Your task to perform on an android device: set default search engine in the chrome app Image 0: 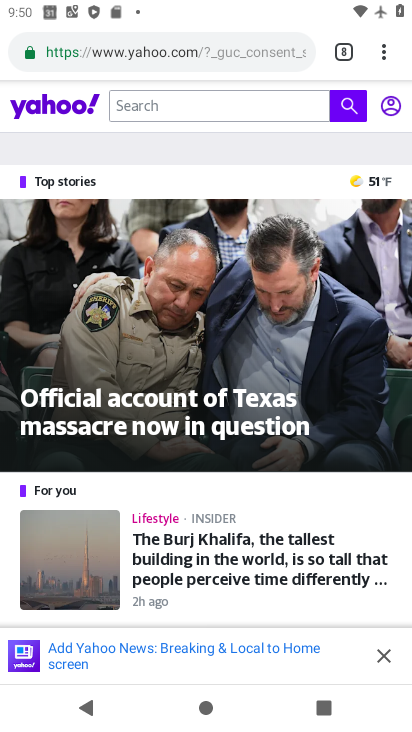
Step 0: press home button
Your task to perform on an android device: set default search engine in the chrome app Image 1: 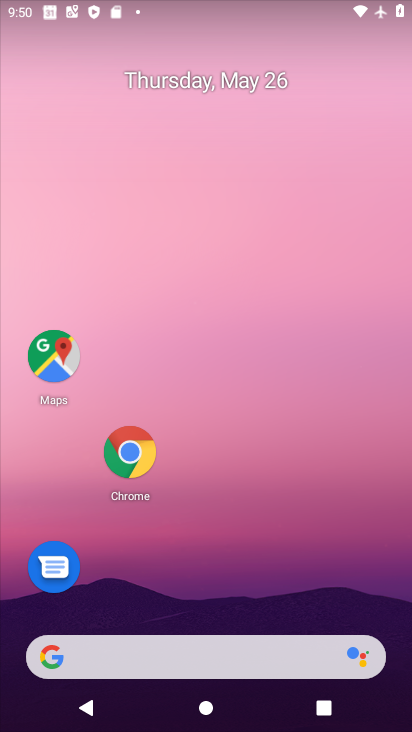
Step 1: click (137, 462)
Your task to perform on an android device: set default search engine in the chrome app Image 2: 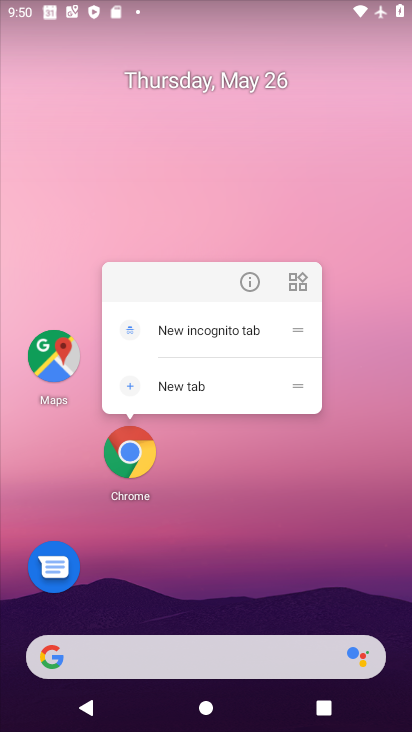
Step 2: click (131, 452)
Your task to perform on an android device: set default search engine in the chrome app Image 3: 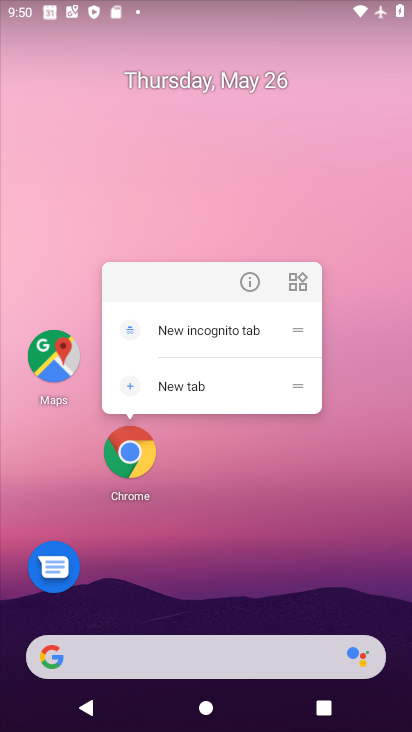
Step 3: click (125, 460)
Your task to perform on an android device: set default search engine in the chrome app Image 4: 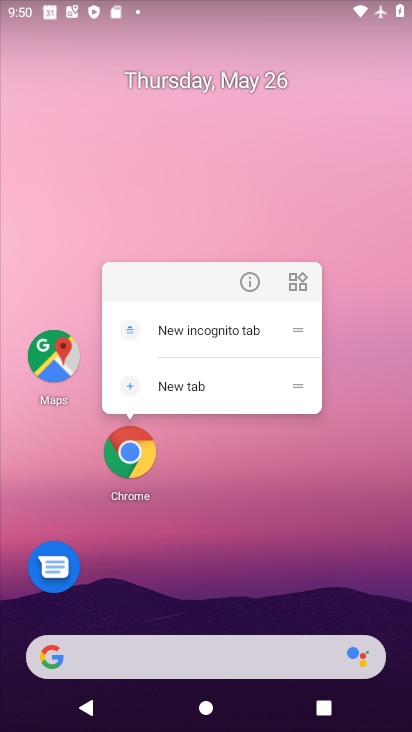
Step 4: click (132, 460)
Your task to perform on an android device: set default search engine in the chrome app Image 5: 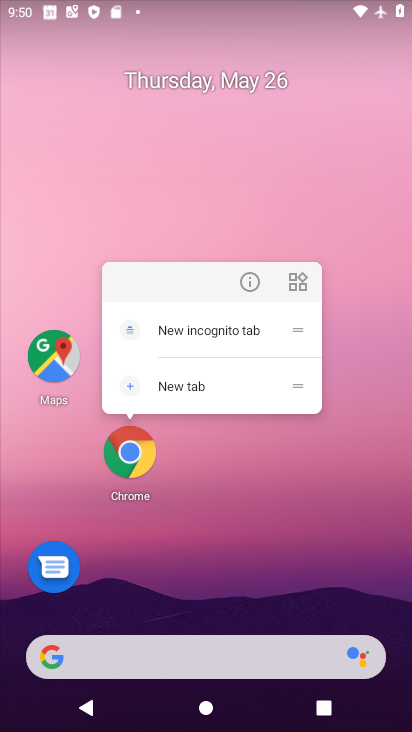
Step 5: click (131, 468)
Your task to perform on an android device: set default search engine in the chrome app Image 6: 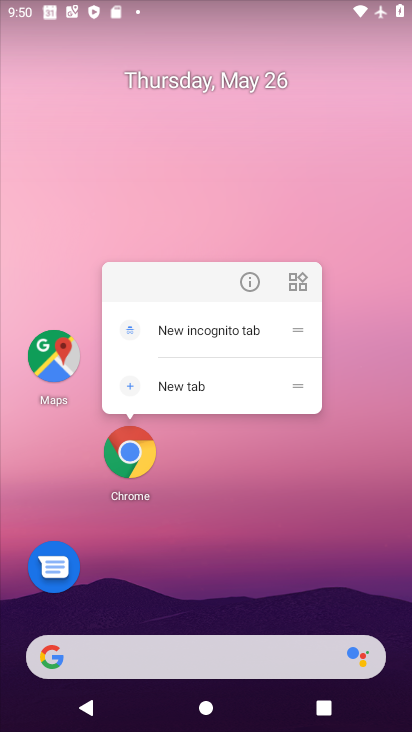
Step 6: click (132, 462)
Your task to perform on an android device: set default search engine in the chrome app Image 7: 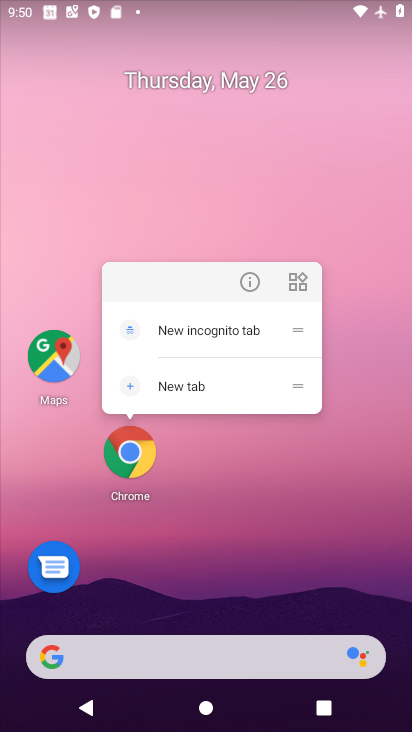
Step 7: click (132, 465)
Your task to perform on an android device: set default search engine in the chrome app Image 8: 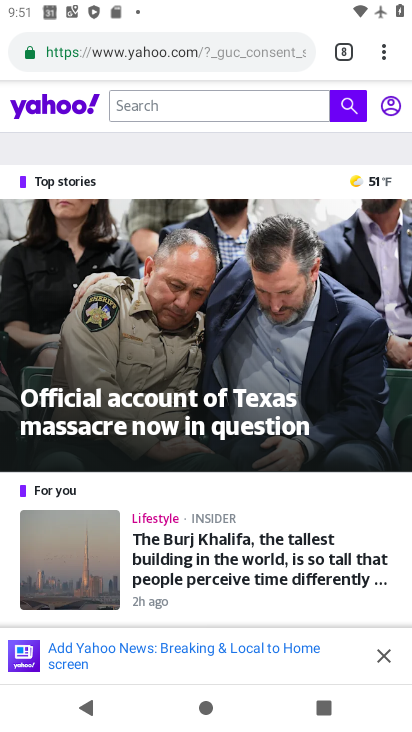
Step 8: drag from (384, 57) to (267, 617)
Your task to perform on an android device: set default search engine in the chrome app Image 9: 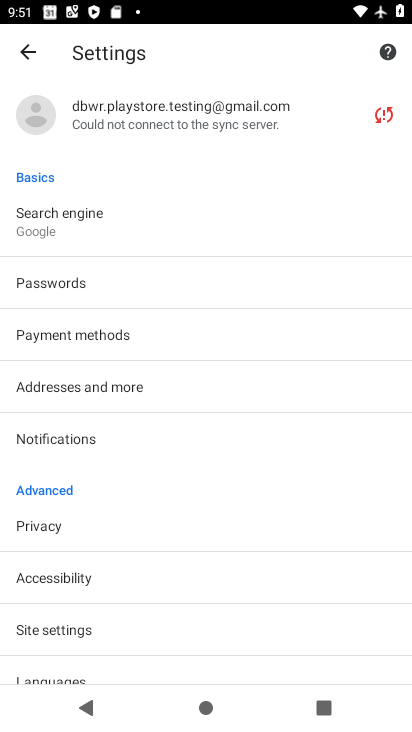
Step 9: click (66, 214)
Your task to perform on an android device: set default search engine in the chrome app Image 10: 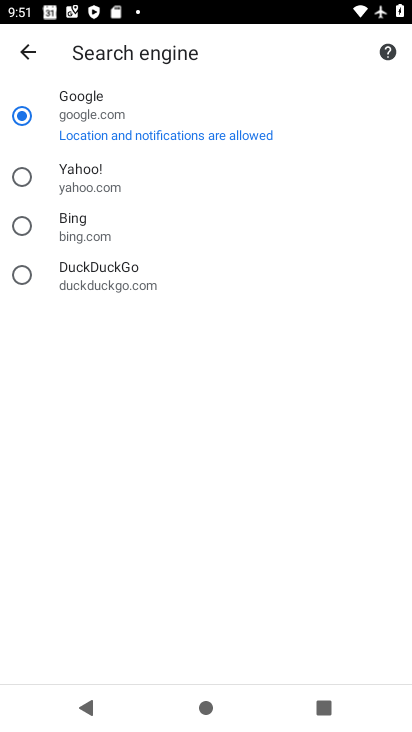
Step 10: click (25, 176)
Your task to perform on an android device: set default search engine in the chrome app Image 11: 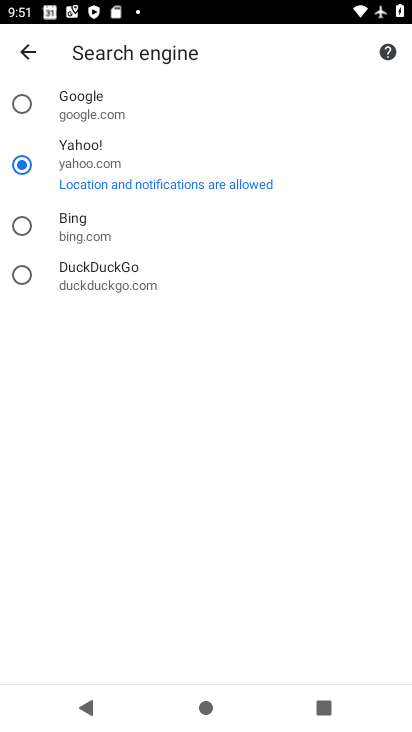
Step 11: task complete